Your task to perform on an android device: What is the capital of Mexico? Image 0: 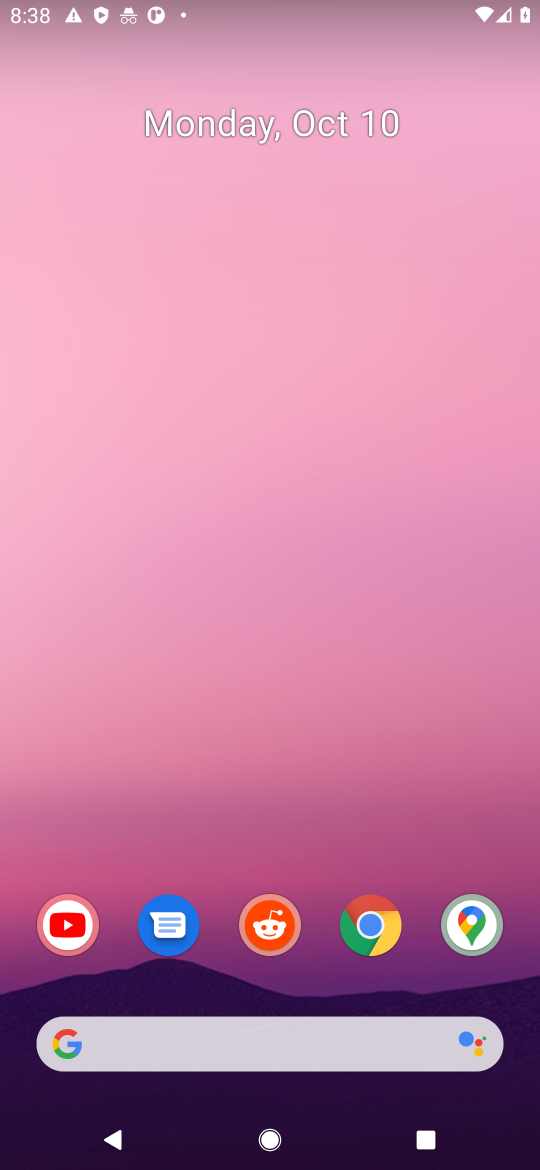
Step 0: drag from (343, 1027) to (261, 208)
Your task to perform on an android device: What is the capital of Mexico? Image 1: 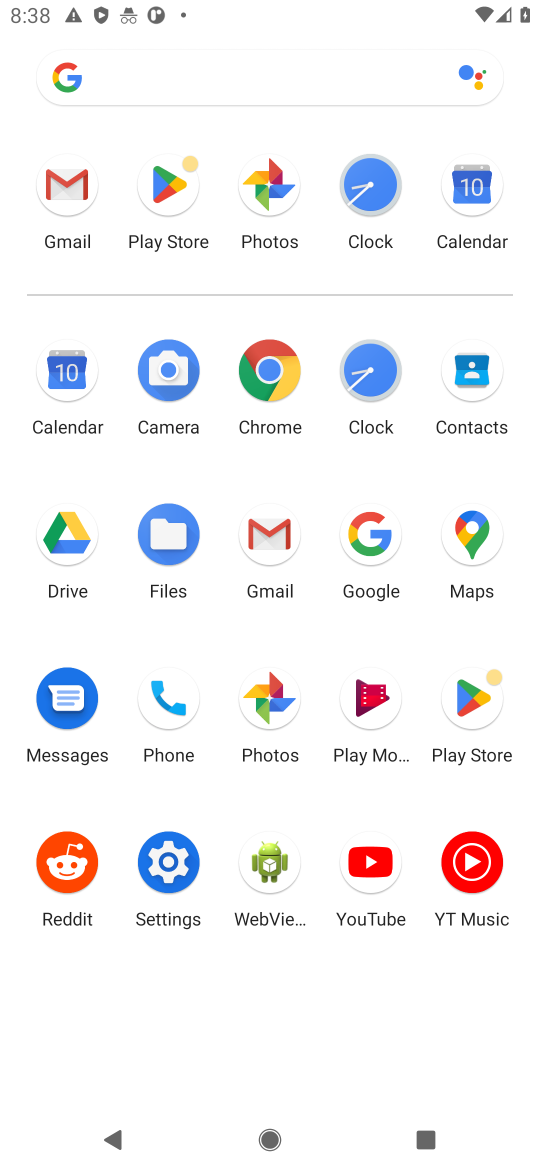
Step 1: click (273, 371)
Your task to perform on an android device: What is the capital of Mexico? Image 2: 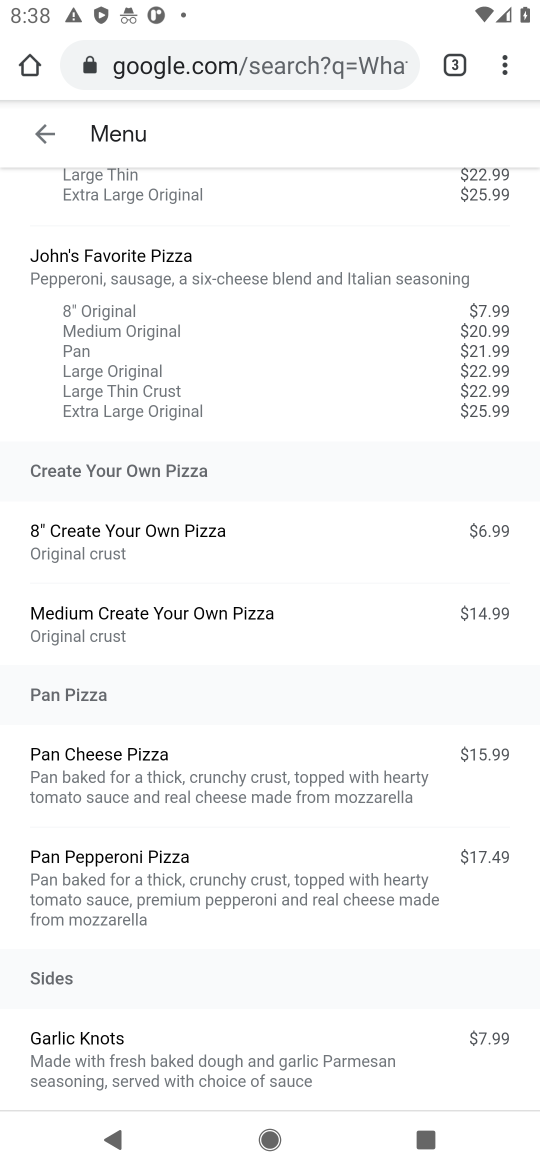
Step 2: click (288, 61)
Your task to perform on an android device: What is the capital of Mexico? Image 3: 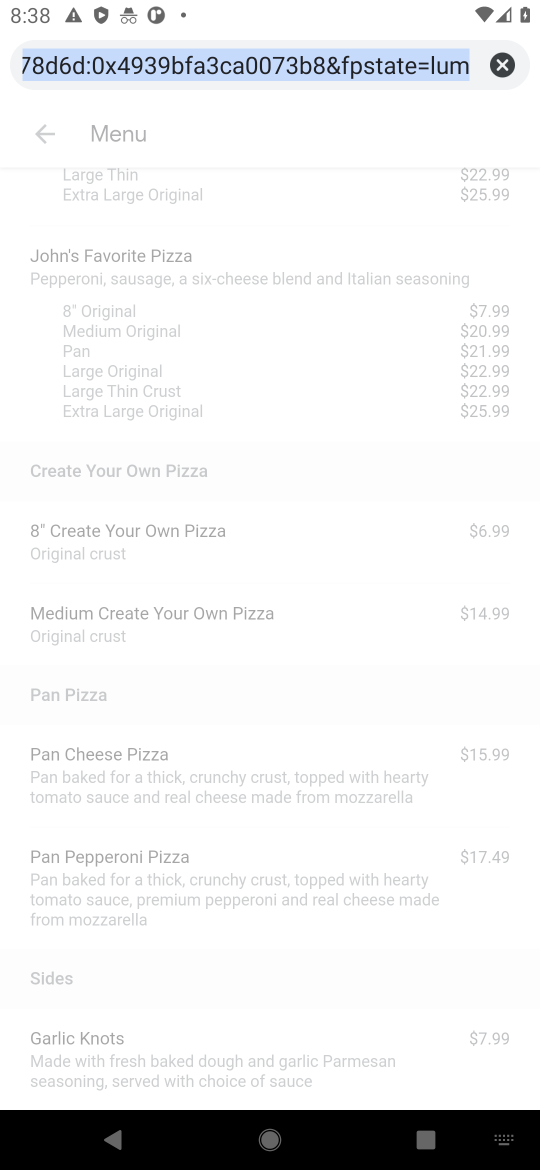
Step 3: type "What is the capital of Mexico?"
Your task to perform on an android device: What is the capital of Mexico? Image 4: 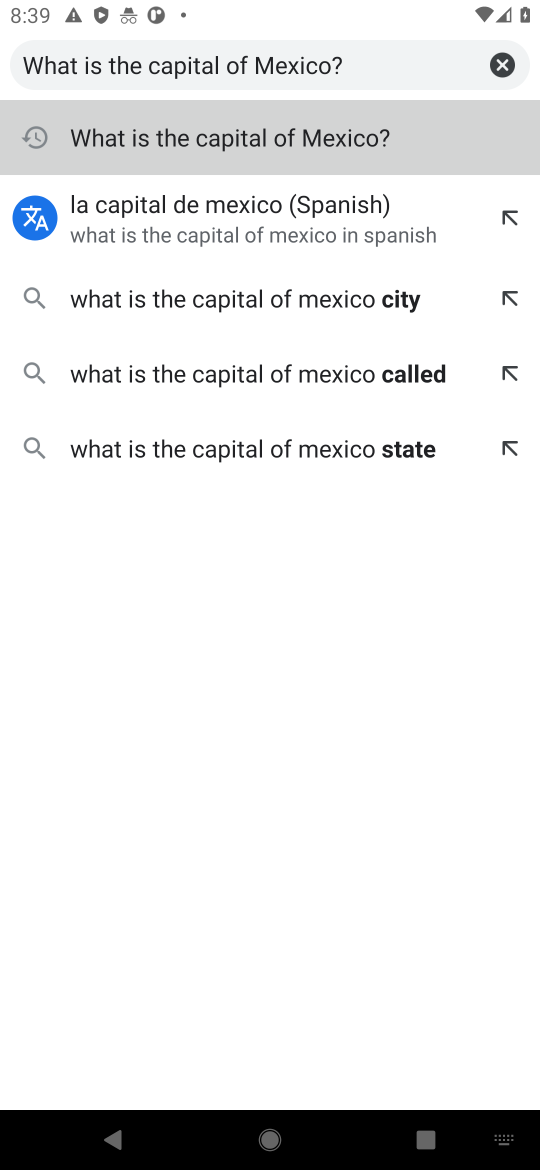
Step 4: press enter
Your task to perform on an android device: What is the capital of Mexico? Image 5: 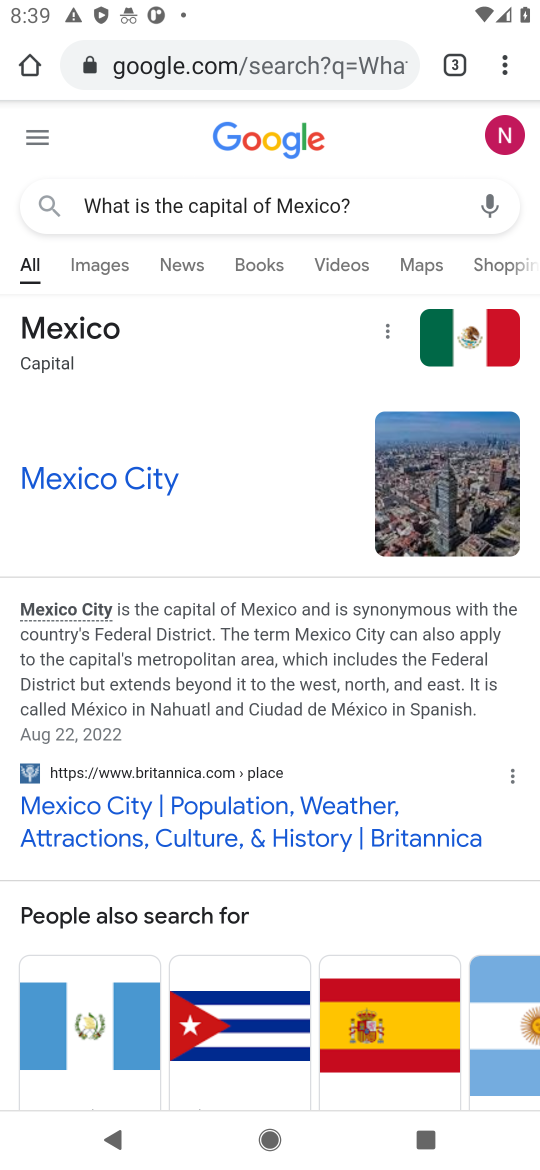
Step 5: task complete